Your task to perform on an android device: toggle notifications settings in the gmail app Image 0: 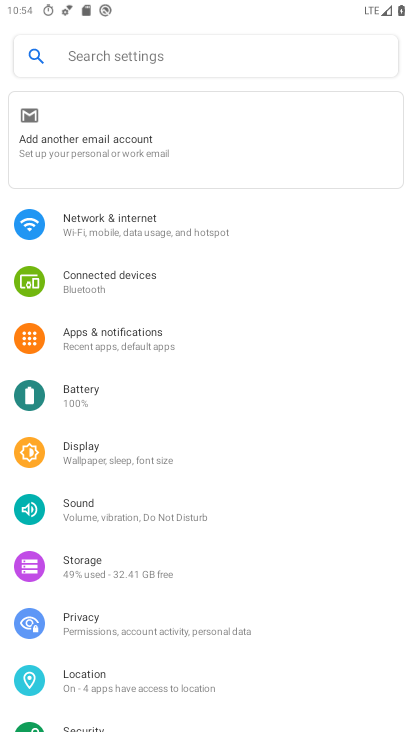
Step 0: press home button
Your task to perform on an android device: toggle notifications settings in the gmail app Image 1: 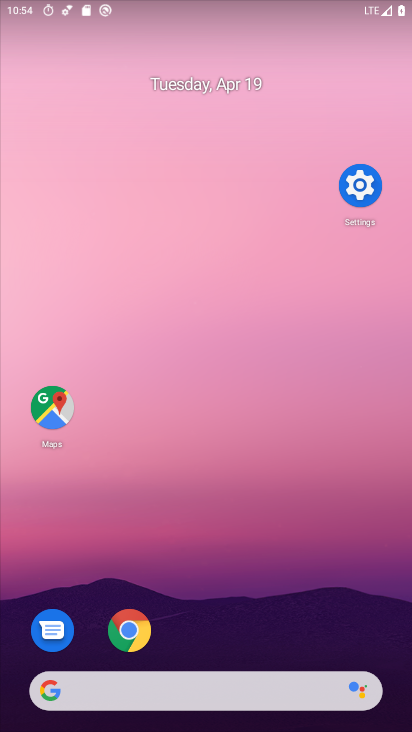
Step 1: drag from (271, 605) to (319, 210)
Your task to perform on an android device: toggle notifications settings in the gmail app Image 2: 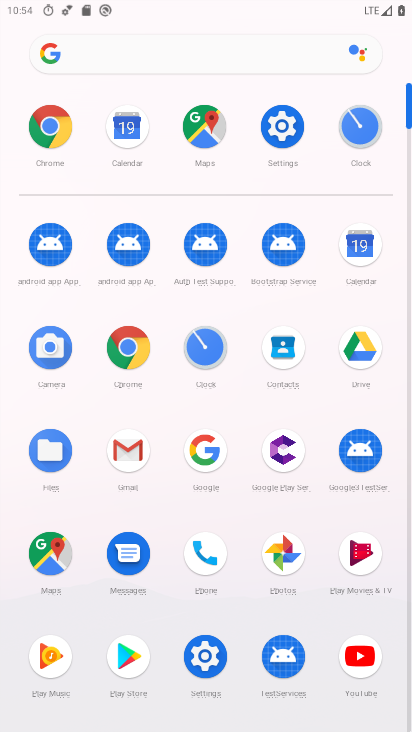
Step 2: click (127, 464)
Your task to perform on an android device: toggle notifications settings in the gmail app Image 3: 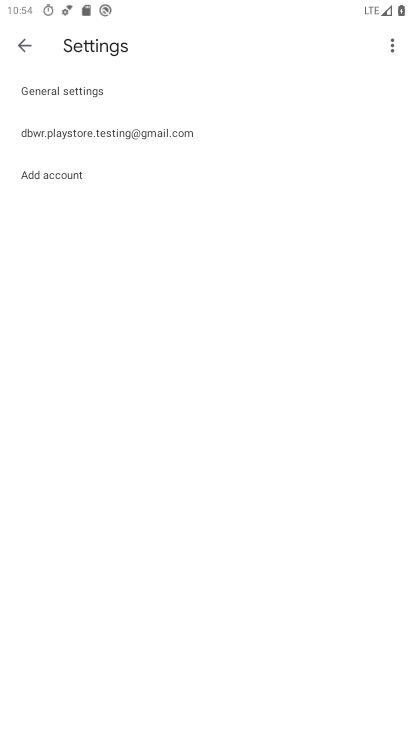
Step 3: click (106, 97)
Your task to perform on an android device: toggle notifications settings in the gmail app Image 4: 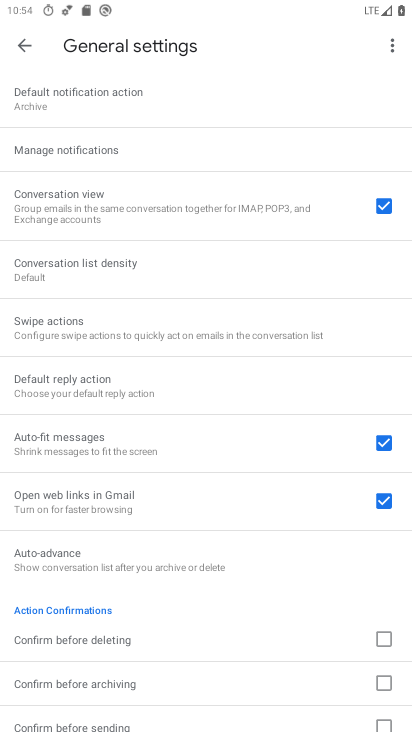
Step 4: click (112, 151)
Your task to perform on an android device: toggle notifications settings in the gmail app Image 5: 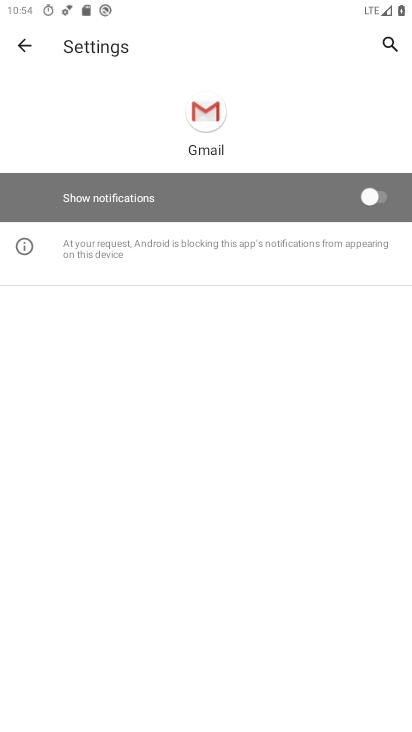
Step 5: click (377, 206)
Your task to perform on an android device: toggle notifications settings in the gmail app Image 6: 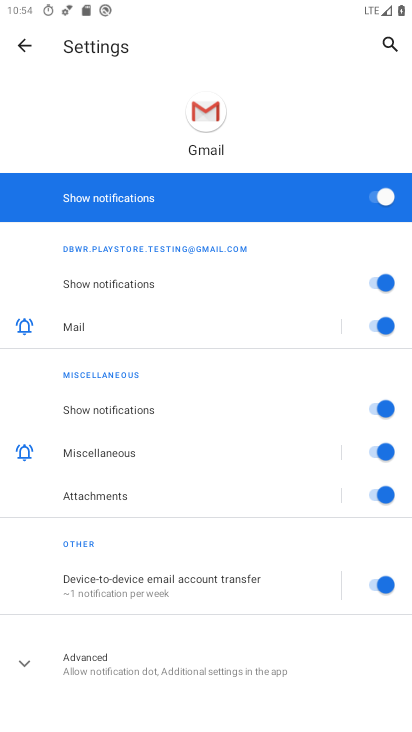
Step 6: task complete